Your task to perform on an android device: Go to internet settings Image 0: 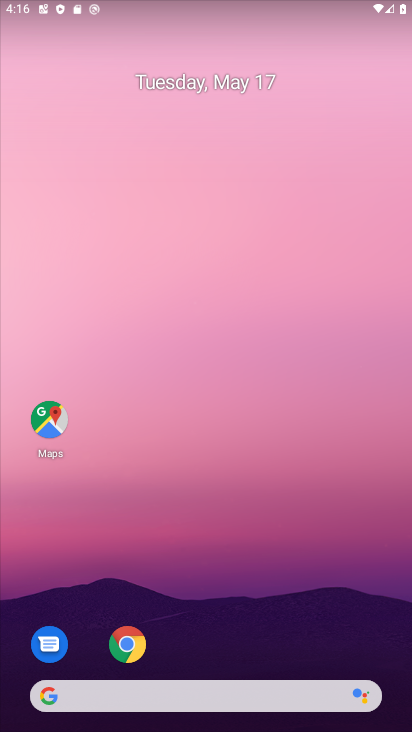
Step 0: drag from (262, 609) to (255, 115)
Your task to perform on an android device: Go to internet settings Image 1: 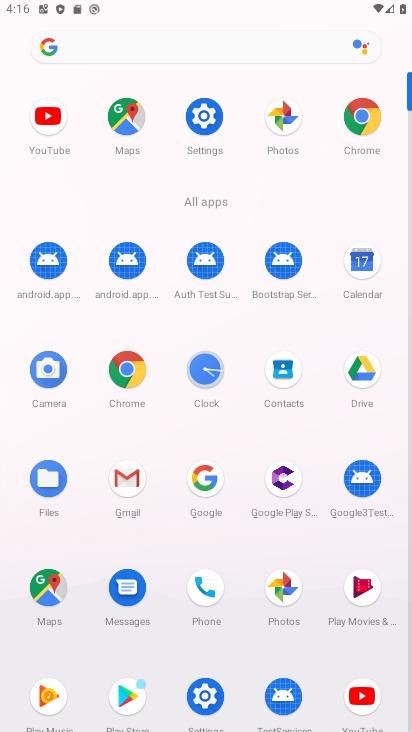
Step 1: click (208, 118)
Your task to perform on an android device: Go to internet settings Image 2: 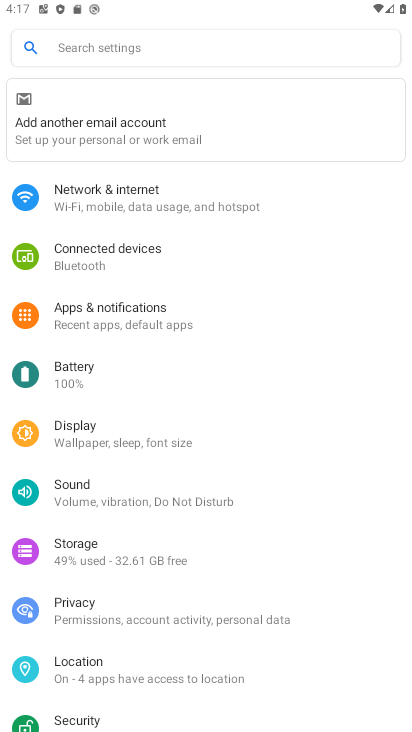
Step 2: click (209, 204)
Your task to perform on an android device: Go to internet settings Image 3: 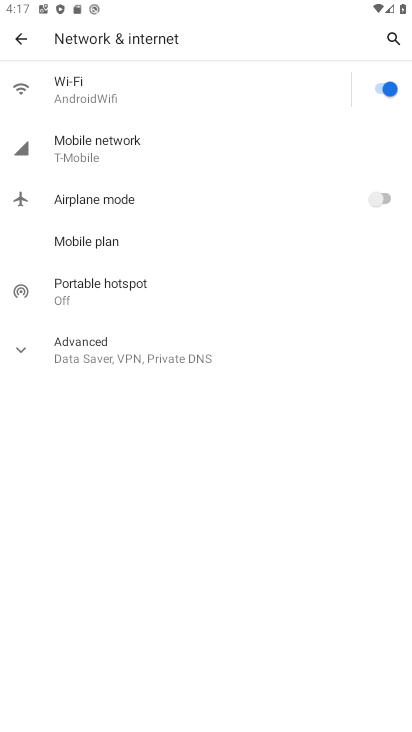
Step 3: task complete